Your task to perform on an android device: What is the speed of a jet? Image 0: 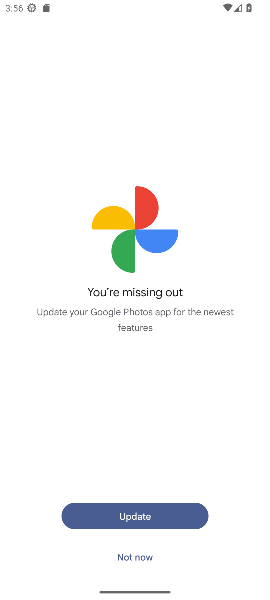
Step 0: press home button
Your task to perform on an android device: What is the speed of a jet? Image 1: 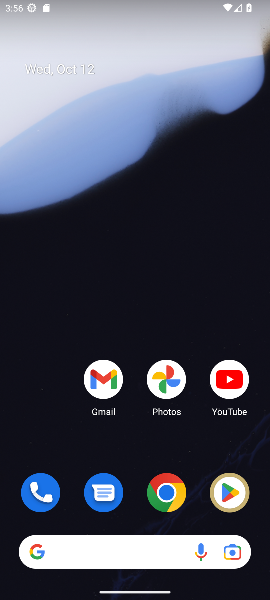
Step 1: click (161, 490)
Your task to perform on an android device: What is the speed of a jet? Image 2: 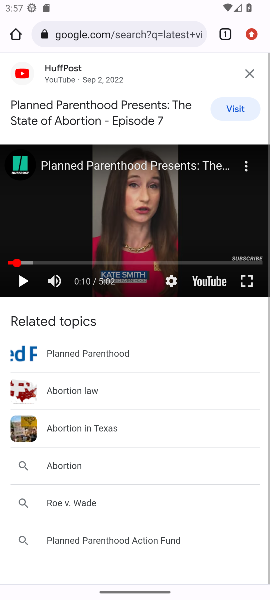
Step 2: click (94, 35)
Your task to perform on an android device: What is the speed of a jet? Image 3: 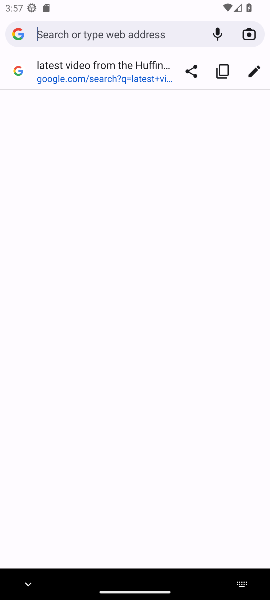
Step 3: type "What is the speed of a jet?"
Your task to perform on an android device: What is the speed of a jet? Image 4: 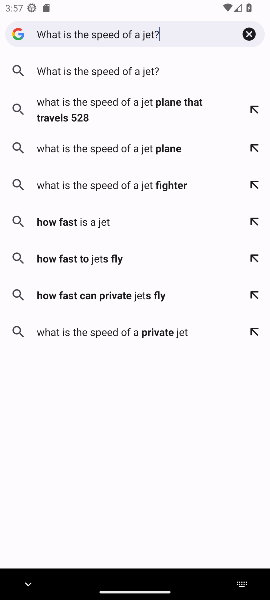
Step 4: click (95, 78)
Your task to perform on an android device: What is the speed of a jet? Image 5: 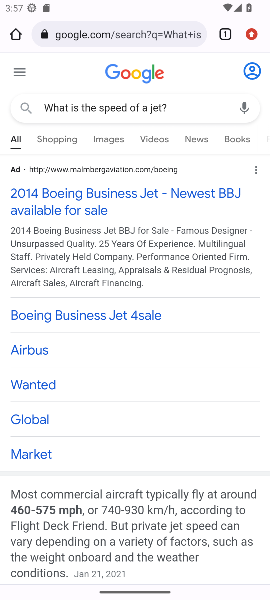
Step 5: click (63, 209)
Your task to perform on an android device: What is the speed of a jet? Image 6: 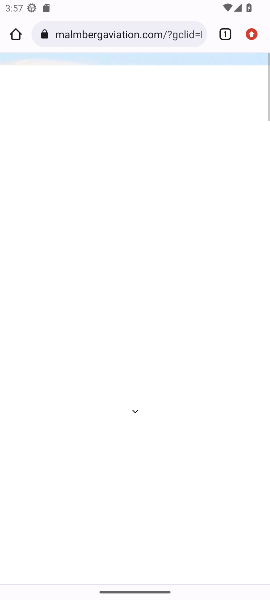
Step 6: click (63, 206)
Your task to perform on an android device: What is the speed of a jet? Image 7: 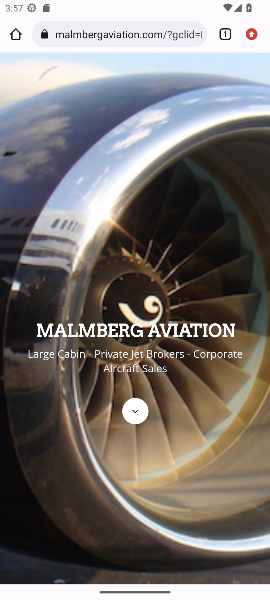
Step 7: drag from (139, 436) to (138, 155)
Your task to perform on an android device: What is the speed of a jet? Image 8: 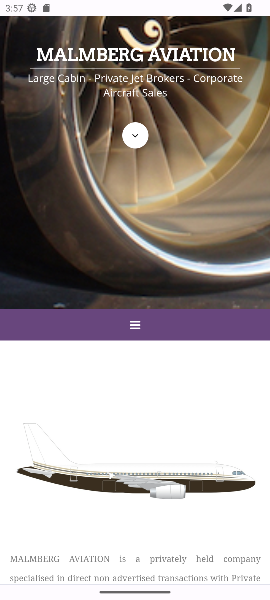
Step 8: drag from (131, 352) to (135, 83)
Your task to perform on an android device: What is the speed of a jet? Image 9: 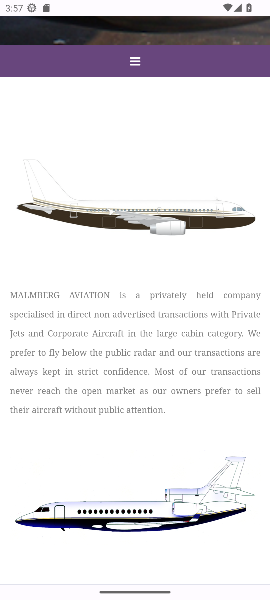
Step 9: drag from (125, 345) to (139, 89)
Your task to perform on an android device: What is the speed of a jet? Image 10: 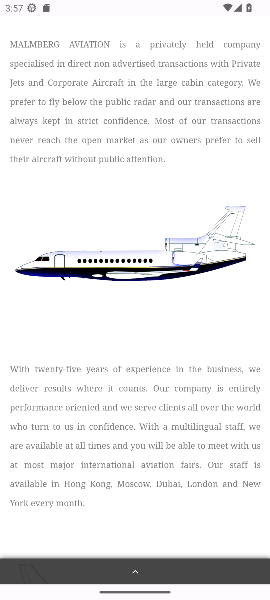
Step 10: drag from (149, 178) to (175, 597)
Your task to perform on an android device: What is the speed of a jet? Image 11: 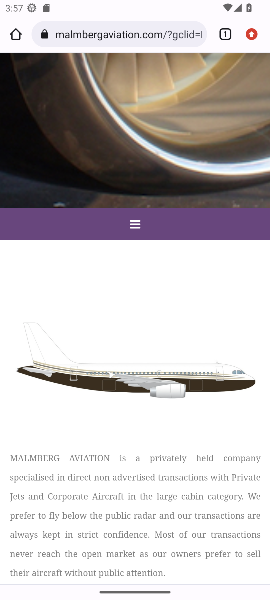
Step 11: click (146, 31)
Your task to perform on an android device: What is the speed of a jet? Image 12: 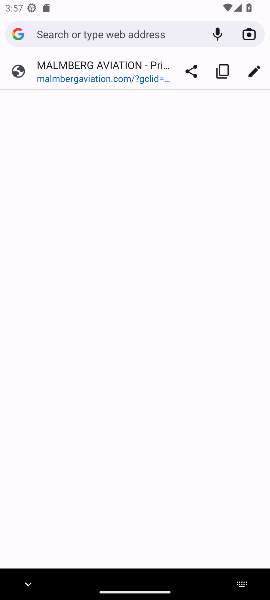
Step 12: type " speed of a jet"
Your task to perform on an android device: What is the speed of a jet? Image 13: 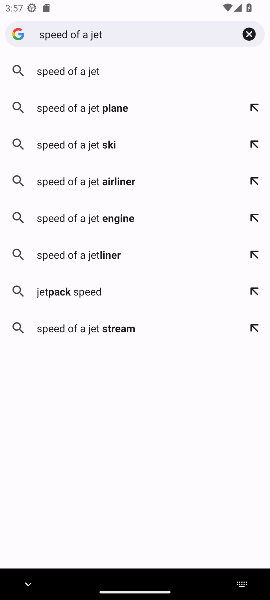
Step 13: click (83, 70)
Your task to perform on an android device: What is the speed of a jet? Image 14: 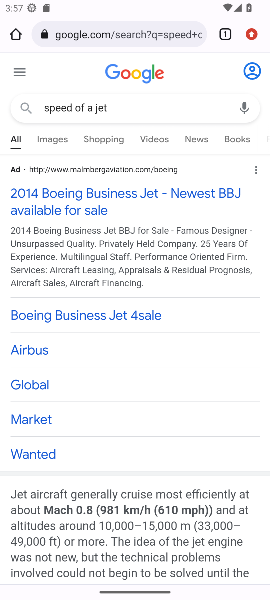
Step 14: drag from (74, 356) to (82, 203)
Your task to perform on an android device: What is the speed of a jet? Image 15: 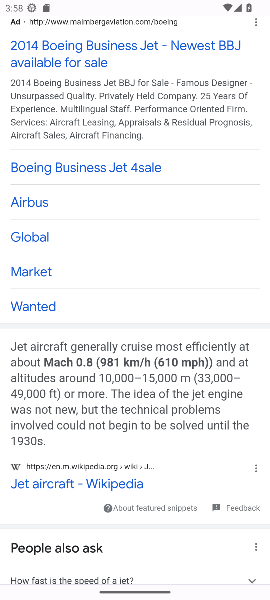
Step 15: drag from (69, 398) to (79, 242)
Your task to perform on an android device: What is the speed of a jet? Image 16: 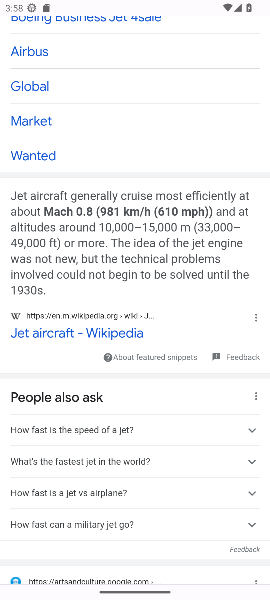
Step 16: click (47, 431)
Your task to perform on an android device: What is the speed of a jet? Image 17: 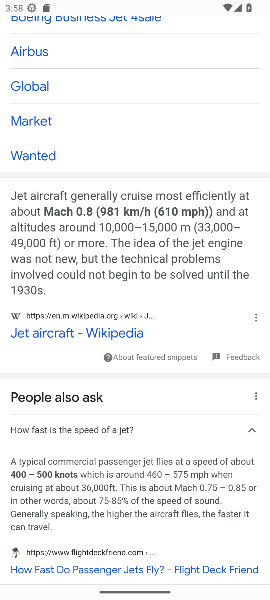
Step 17: task complete